Your task to perform on an android device: Open the stopwatch Image 0: 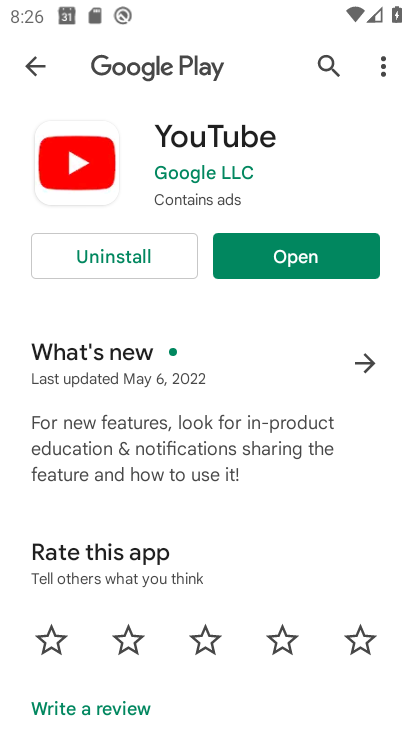
Step 0: press home button
Your task to perform on an android device: Open the stopwatch Image 1: 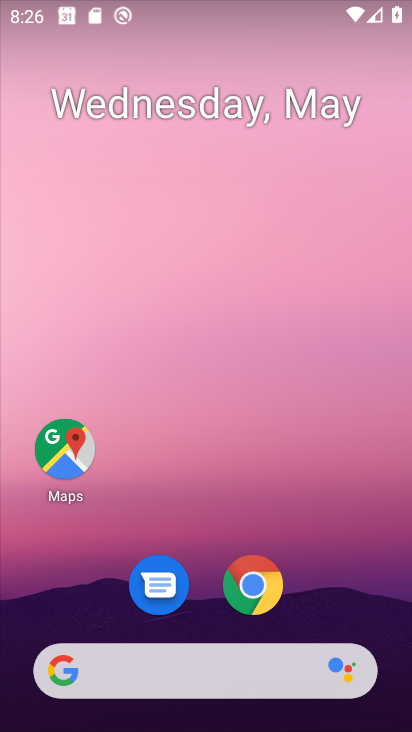
Step 1: drag from (342, 546) to (292, 29)
Your task to perform on an android device: Open the stopwatch Image 2: 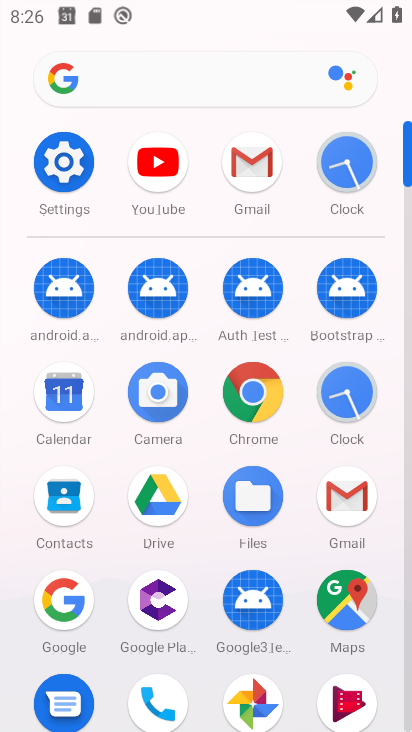
Step 2: click (340, 152)
Your task to perform on an android device: Open the stopwatch Image 3: 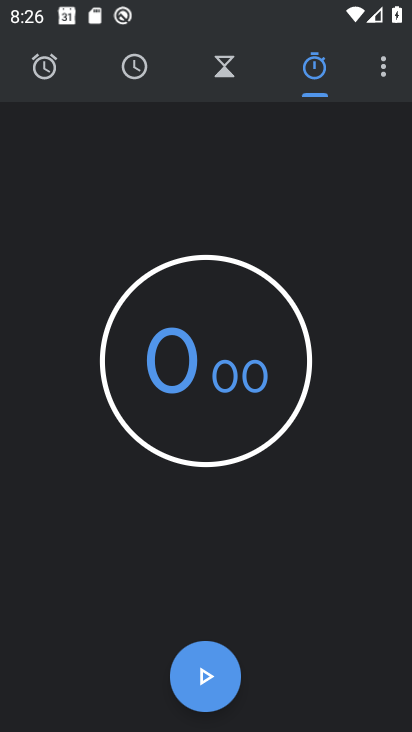
Step 3: click (318, 75)
Your task to perform on an android device: Open the stopwatch Image 4: 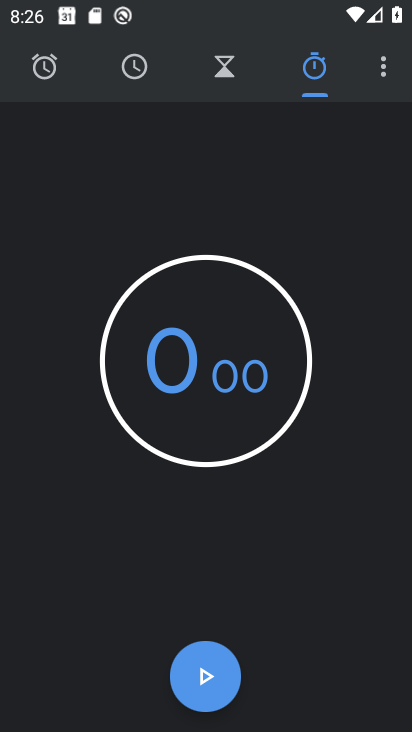
Step 4: task complete